Your task to perform on an android device: What's the weather today? Image 0: 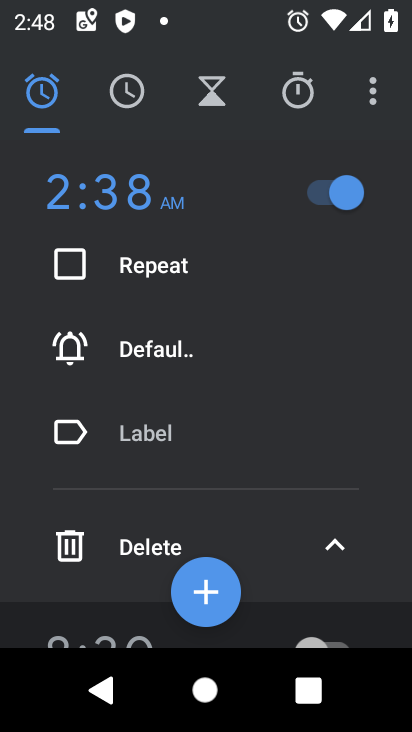
Step 0: press home button
Your task to perform on an android device: What's the weather today? Image 1: 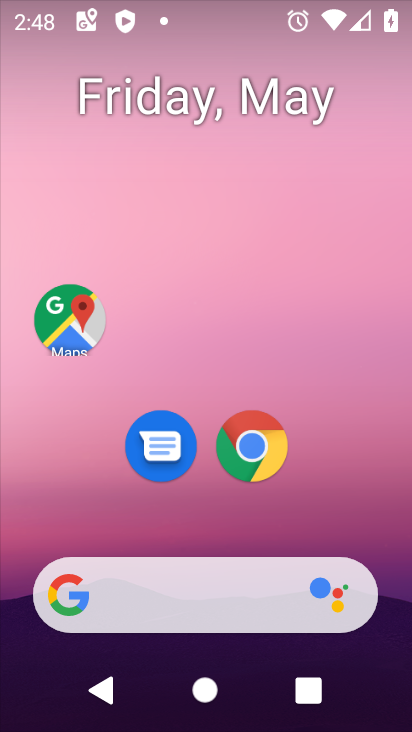
Step 1: drag from (370, 514) to (335, 106)
Your task to perform on an android device: What's the weather today? Image 2: 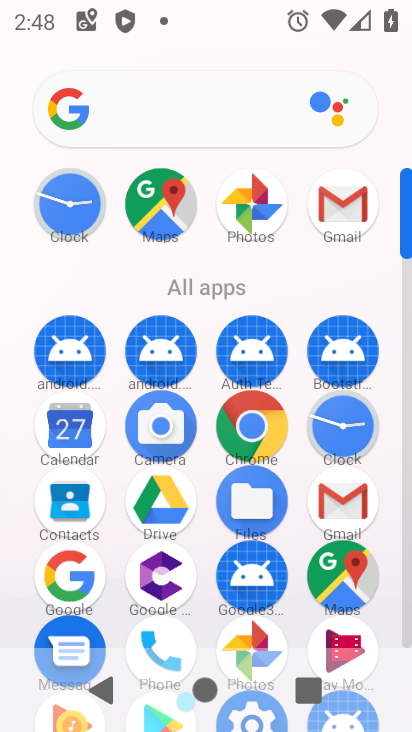
Step 2: click (261, 412)
Your task to perform on an android device: What's the weather today? Image 3: 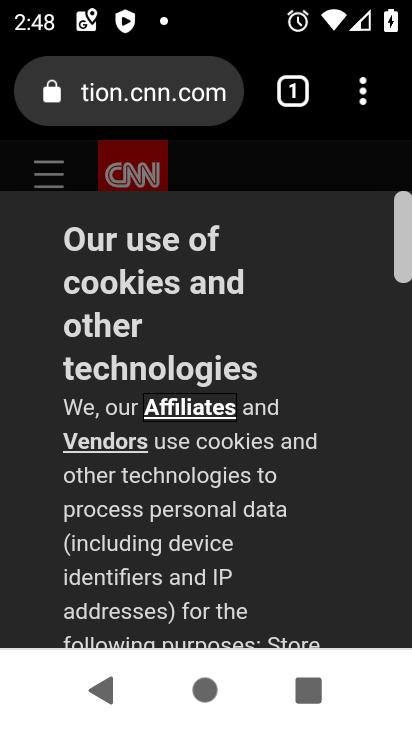
Step 3: click (189, 109)
Your task to perform on an android device: What's the weather today? Image 4: 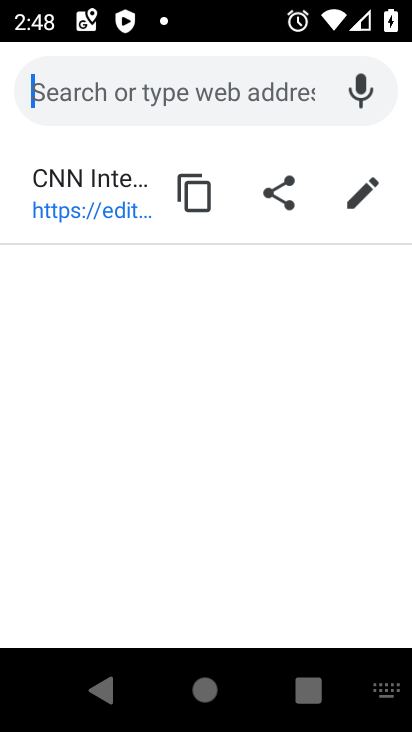
Step 4: type "What's the weather today?"
Your task to perform on an android device: What's the weather today? Image 5: 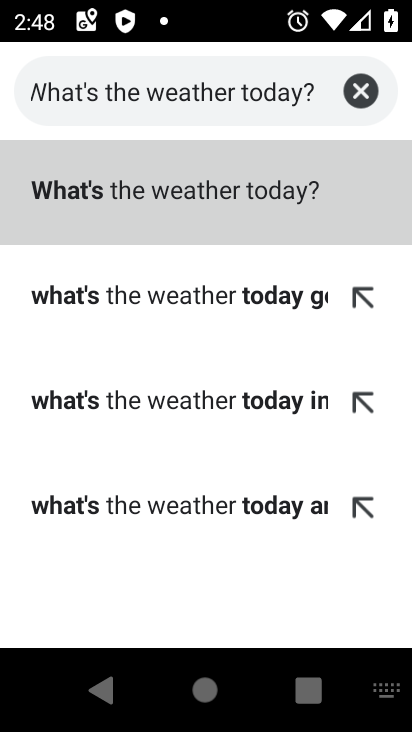
Step 5: click (200, 198)
Your task to perform on an android device: What's the weather today? Image 6: 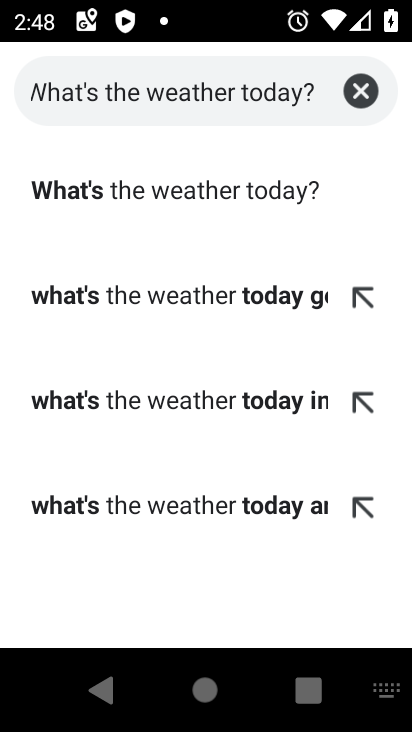
Step 6: click (200, 198)
Your task to perform on an android device: What's the weather today? Image 7: 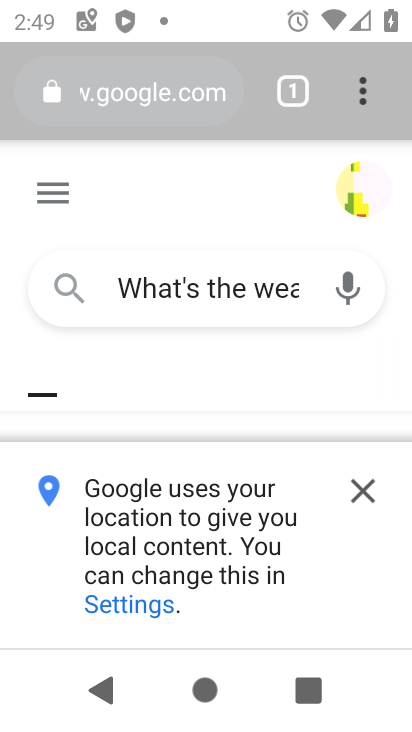
Step 7: click (372, 492)
Your task to perform on an android device: What's the weather today? Image 8: 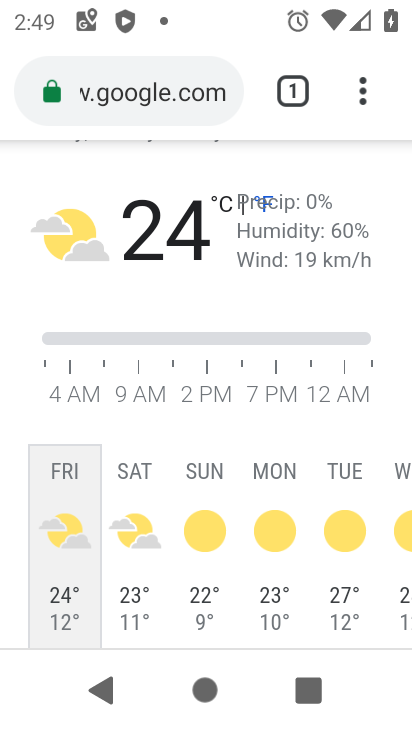
Step 8: task complete